Your task to perform on an android device: Search for seafood restaurants on Google Maps Image 0: 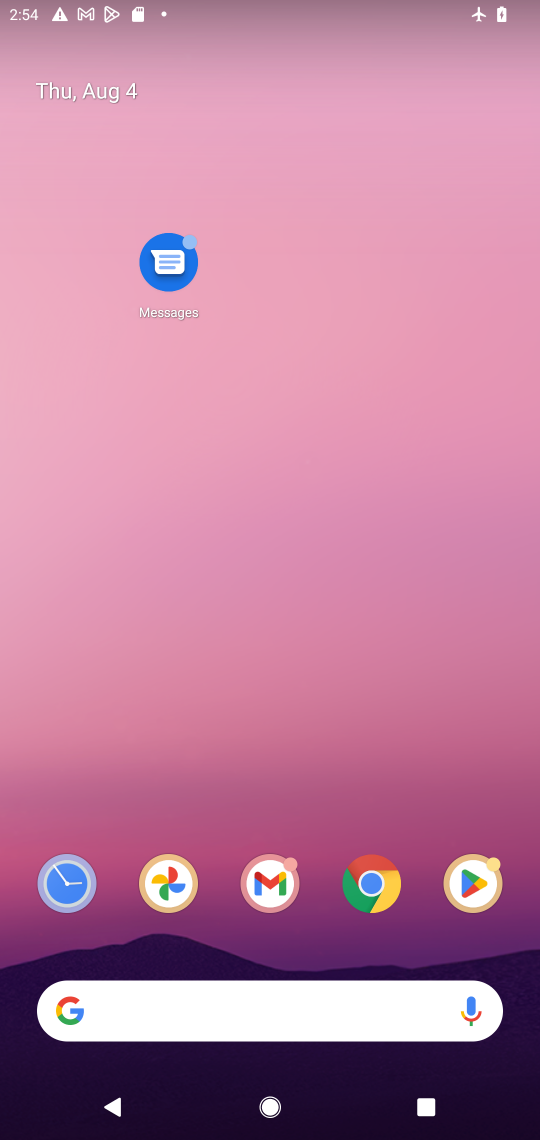
Step 0: drag from (308, 903) to (287, 70)
Your task to perform on an android device: Search for seafood restaurants on Google Maps Image 1: 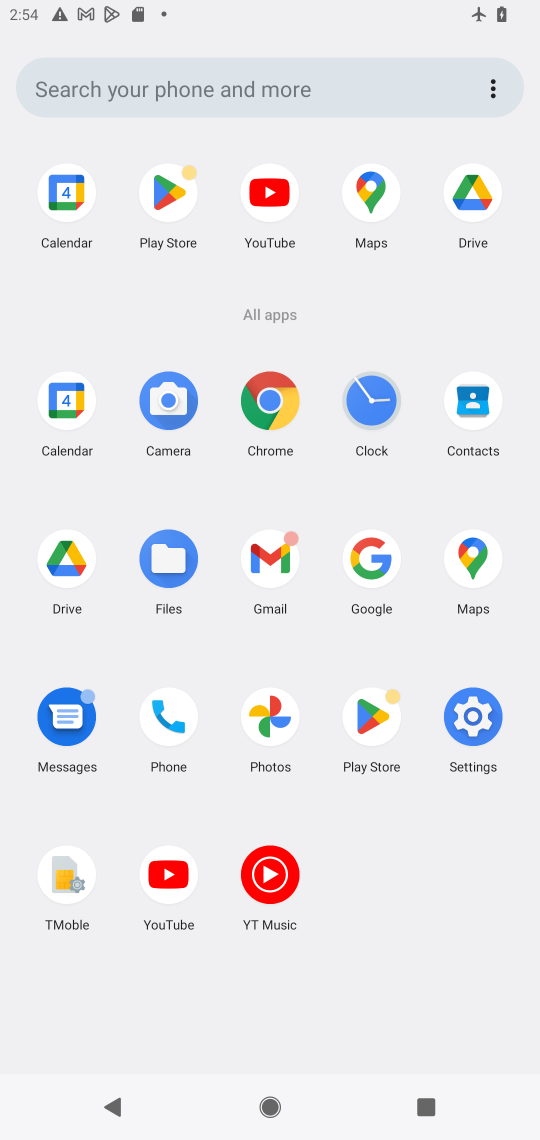
Step 1: click (370, 187)
Your task to perform on an android device: Search for seafood restaurants on Google Maps Image 2: 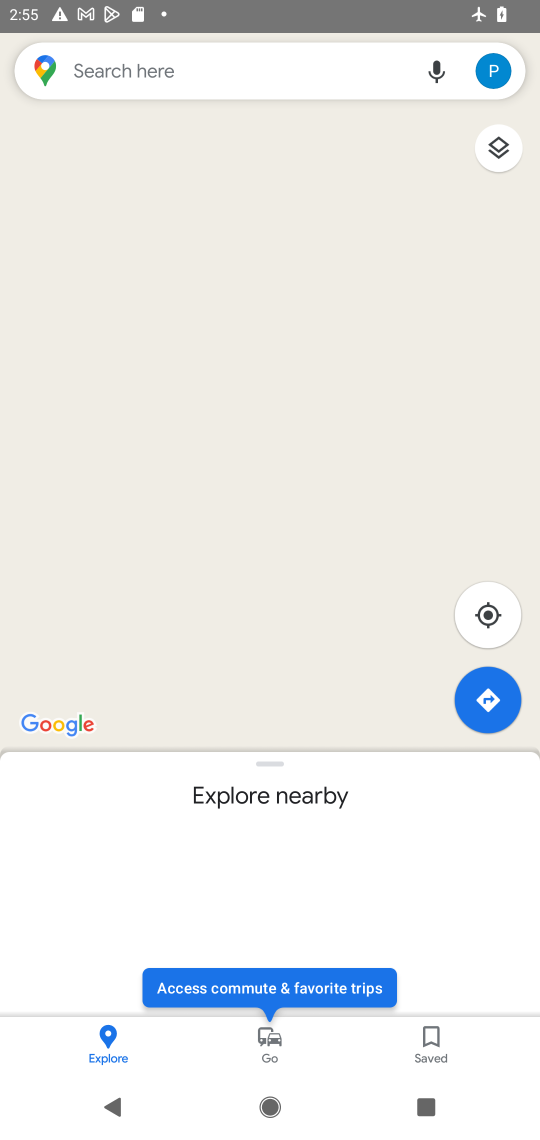
Step 2: click (179, 76)
Your task to perform on an android device: Search for seafood restaurants on Google Maps Image 3: 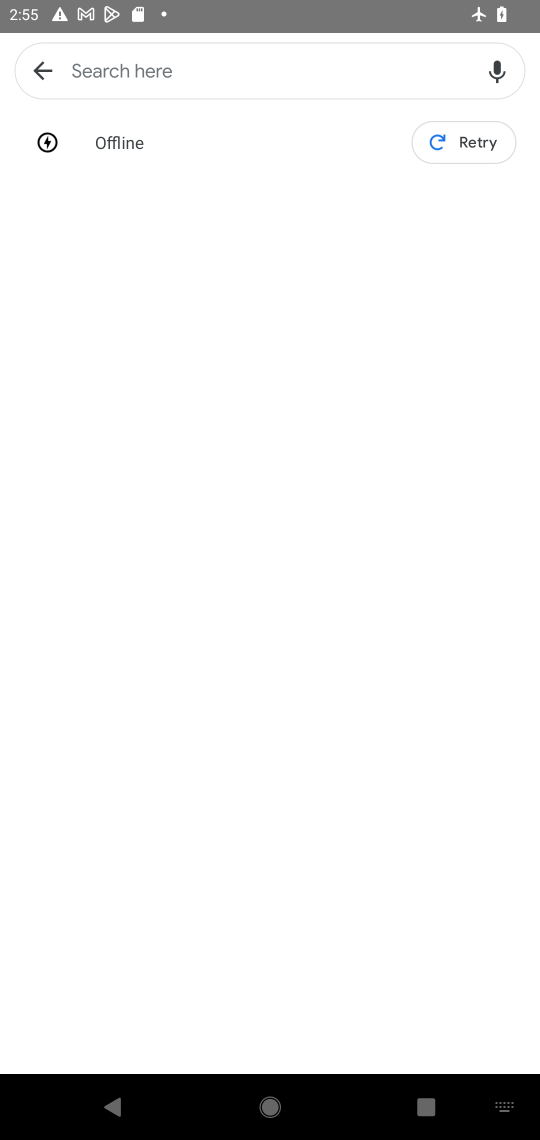
Step 3: type "Seafood restaurants"
Your task to perform on an android device: Search for seafood restaurants on Google Maps Image 4: 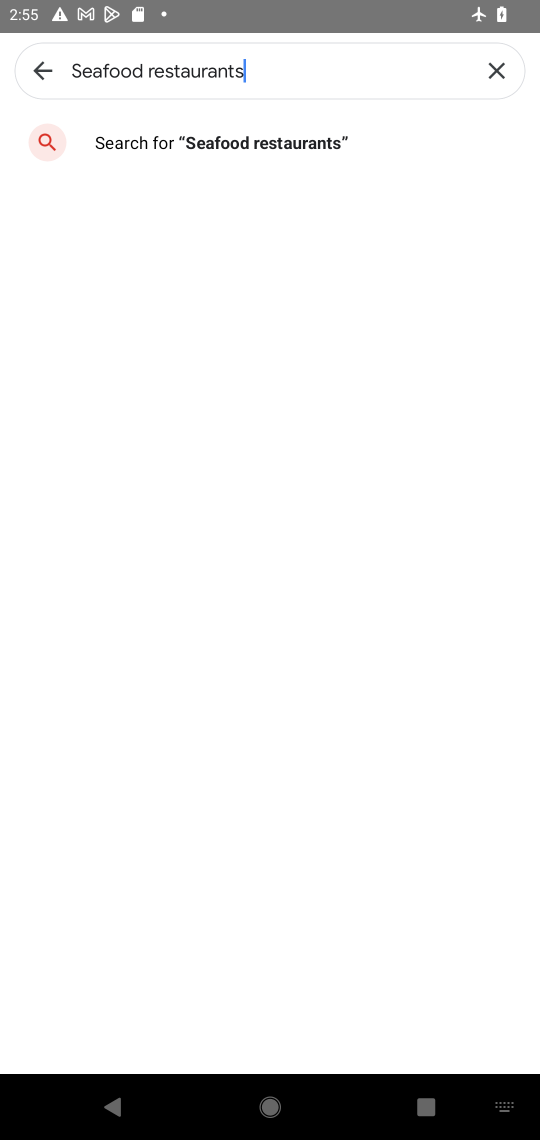
Step 4: click (276, 146)
Your task to perform on an android device: Search for seafood restaurants on Google Maps Image 5: 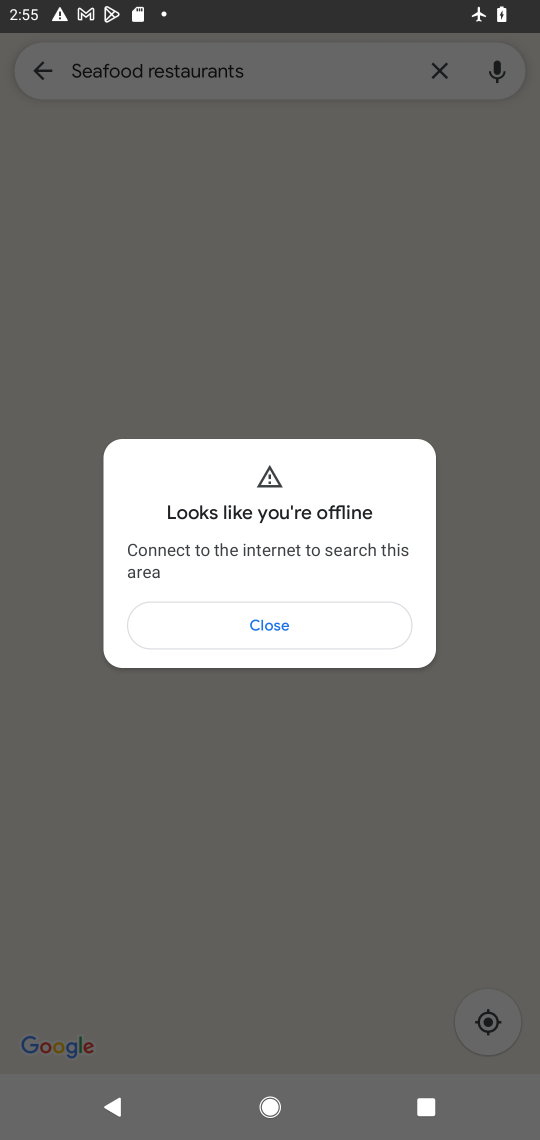
Step 5: task complete